Your task to perform on an android device: Go to internet settings Image 0: 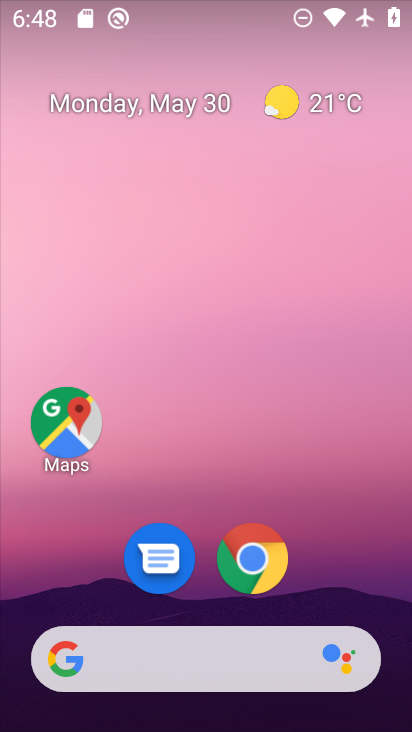
Step 0: drag from (332, 548) to (277, 132)
Your task to perform on an android device: Go to internet settings Image 1: 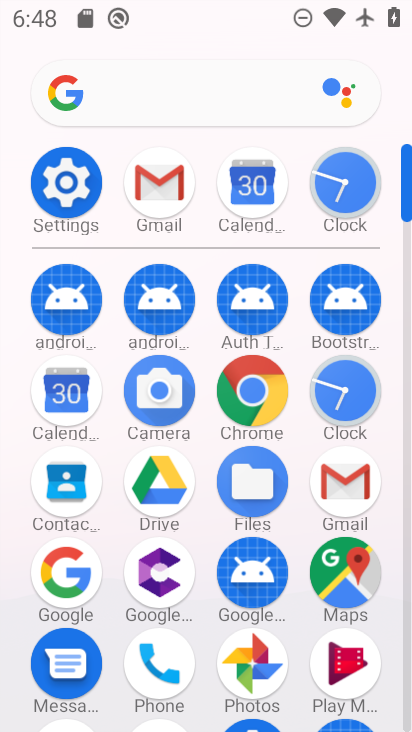
Step 1: click (62, 186)
Your task to perform on an android device: Go to internet settings Image 2: 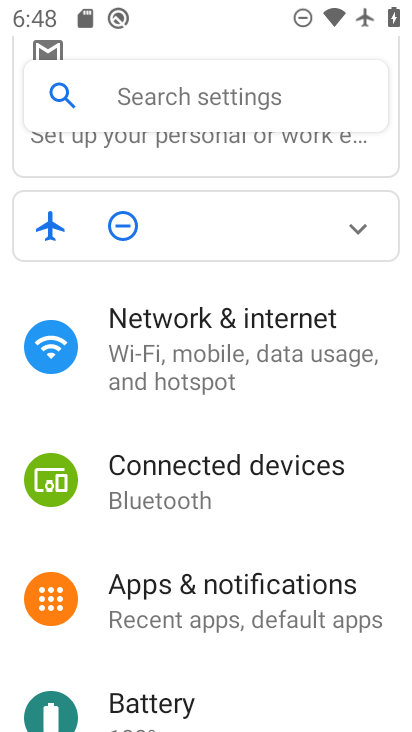
Step 2: click (204, 337)
Your task to perform on an android device: Go to internet settings Image 3: 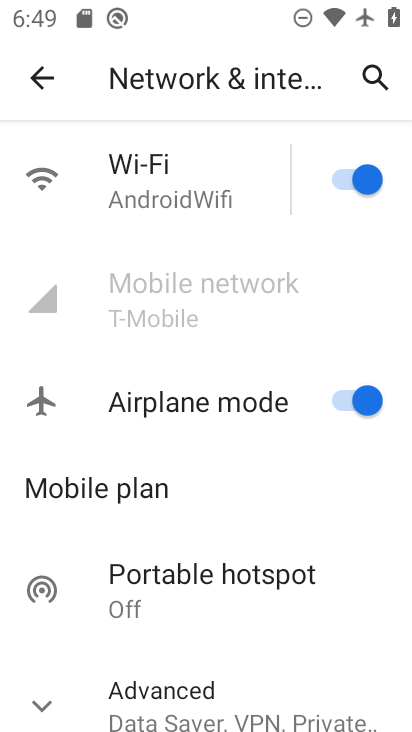
Step 3: task complete